Your task to perform on an android device: Show me productivity apps on the Play Store Image 0: 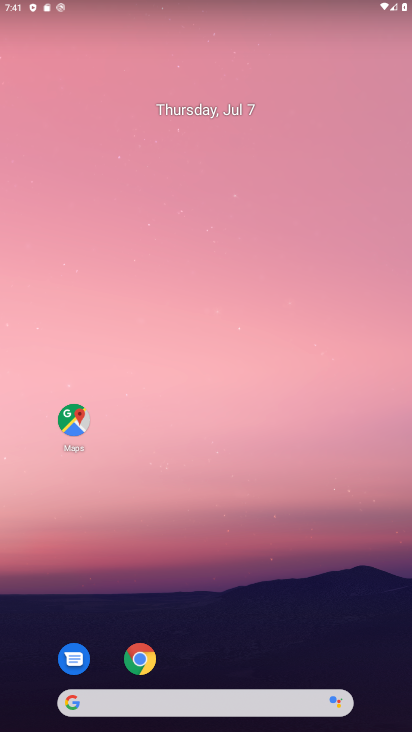
Step 0: drag from (199, 583) to (153, 25)
Your task to perform on an android device: Show me productivity apps on the Play Store Image 1: 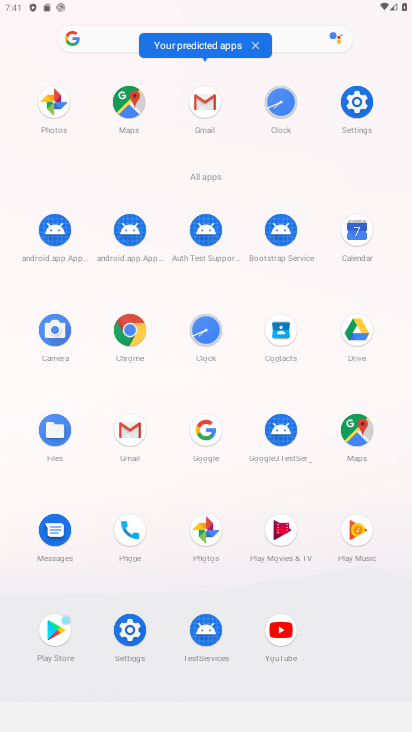
Step 1: click (53, 632)
Your task to perform on an android device: Show me productivity apps on the Play Store Image 2: 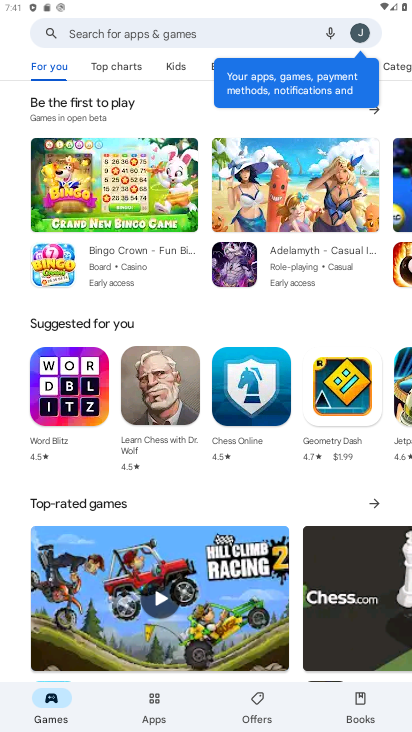
Step 2: click (393, 68)
Your task to perform on an android device: Show me productivity apps on the Play Store Image 3: 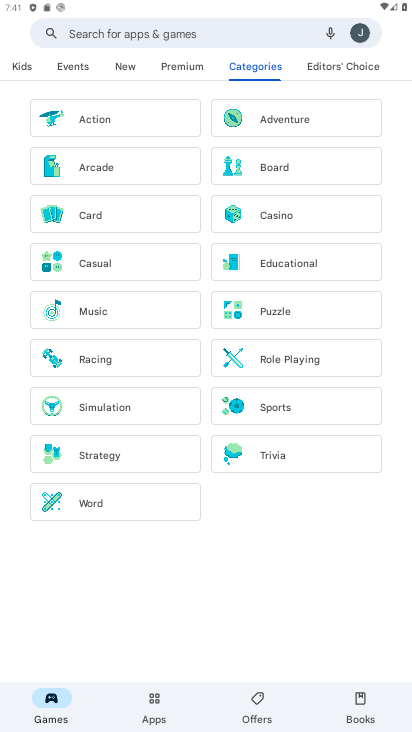
Step 3: click (159, 706)
Your task to perform on an android device: Show me productivity apps on the Play Store Image 4: 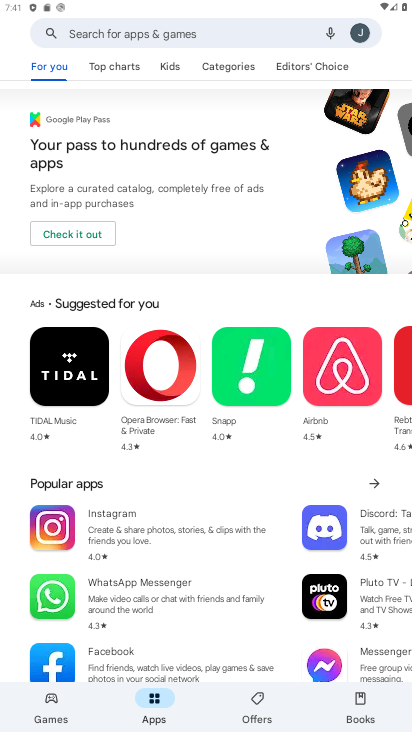
Step 4: click (234, 57)
Your task to perform on an android device: Show me productivity apps on the Play Store Image 5: 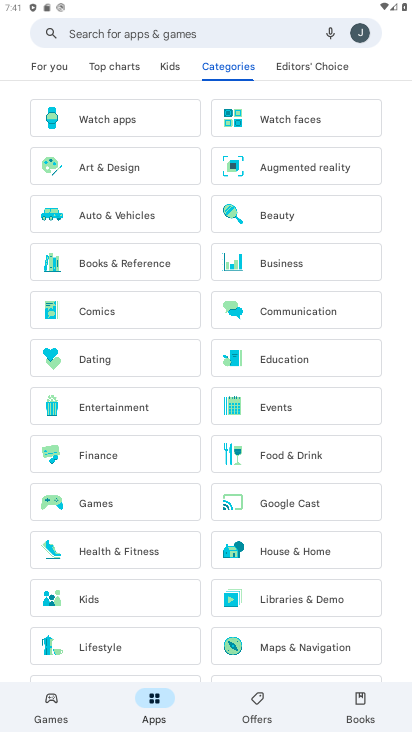
Step 5: drag from (147, 553) to (164, 232)
Your task to perform on an android device: Show me productivity apps on the Play Store Image 6: 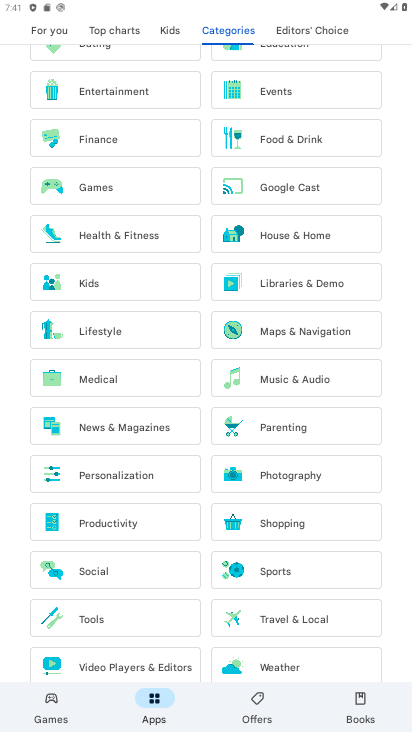
Step 6: click (118, 519)
Your task to perform on an android device: Show me productivity apps on the Play Store Image 7: 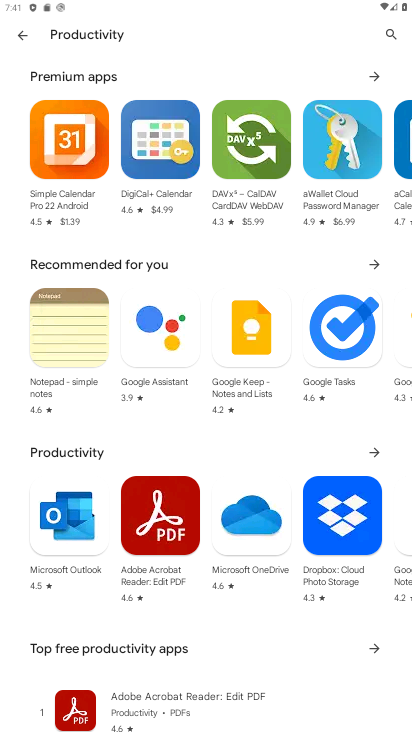
Step 7: task complete